Your task to perform on an android device: toggle sleep mode Image 0: 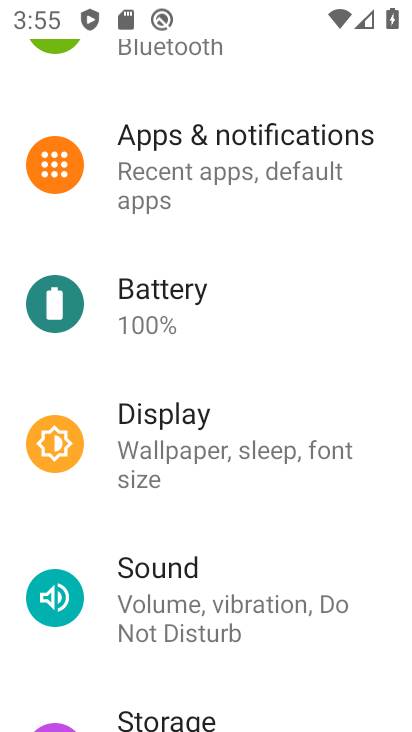
Step 0: press home button
Your task to perform on an android device: toggle sleep mode Image 1: 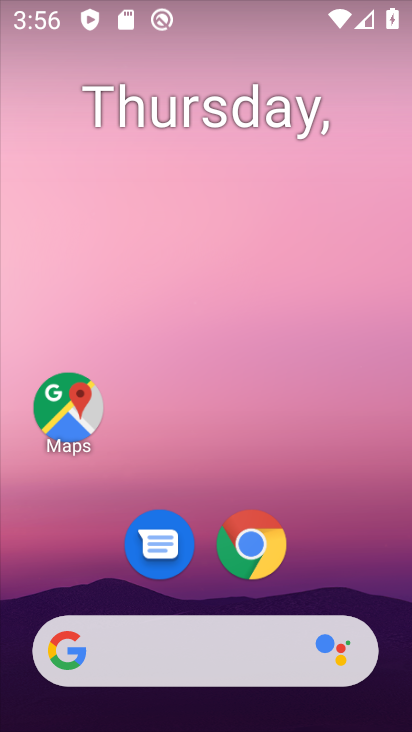
Step 1: drag from (304, 563) to (304, 180)
Your task to perform on an android device: toggle sleep mode Image 2: 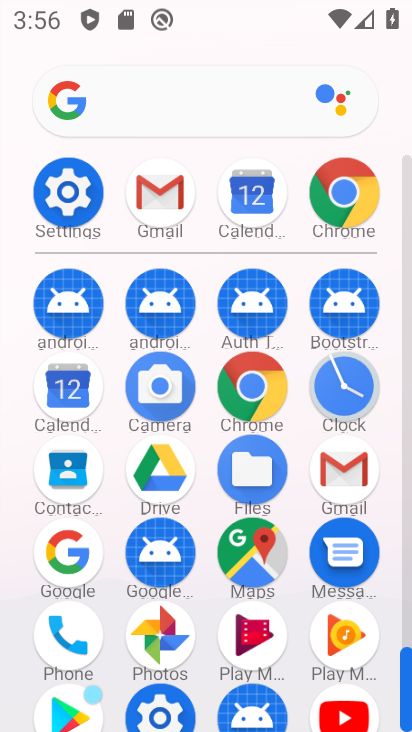
Step 2: click (69, 216)
Your task to perform on an android device: toggle sleep mode Image 3: 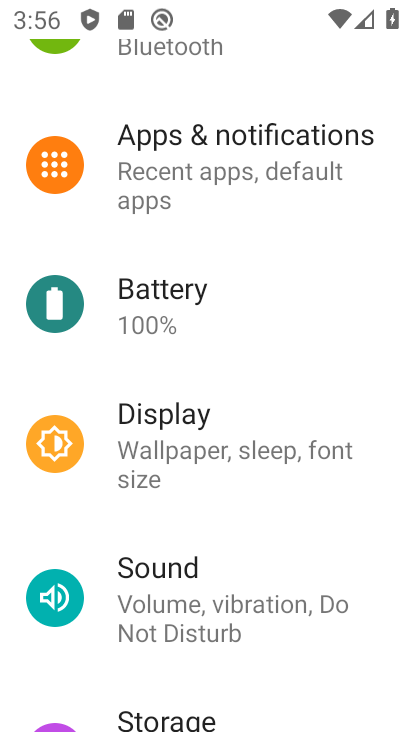
Step 3: click (183, 465)
Your task to perform on an android device: toggle sleep mode Image 4: 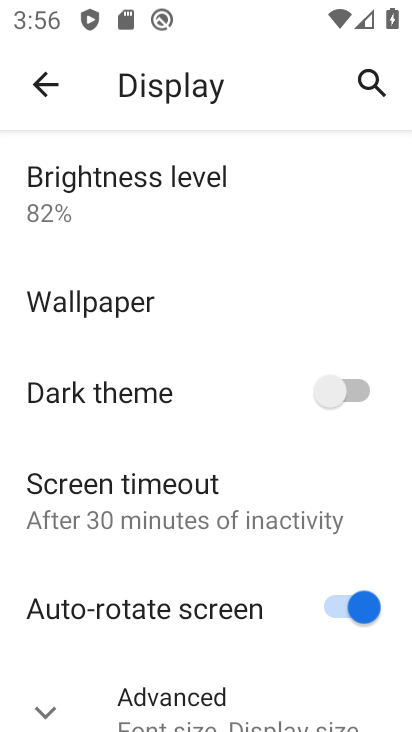
Step 4: drag from (234, 466) to (266, 205)
Your task to perform on an android device: toggle sleep mode Image 5: 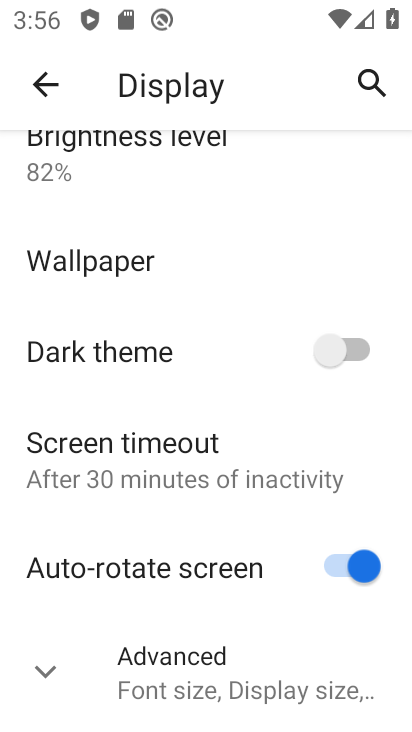
Step 5: drag from (189, 356) to (215, 685)
Your task to perform on an android device: toggle sleep mode Image 6: 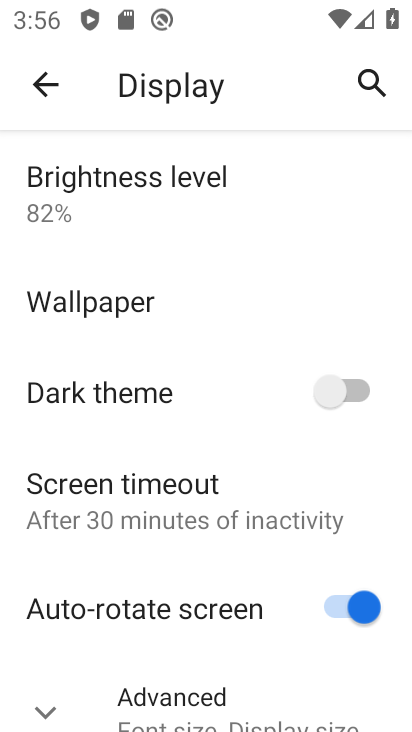
Step 6: drag from (232, 621) to (218, 162)
Your task to perform on an android device: toggle sleep mode Image 7: 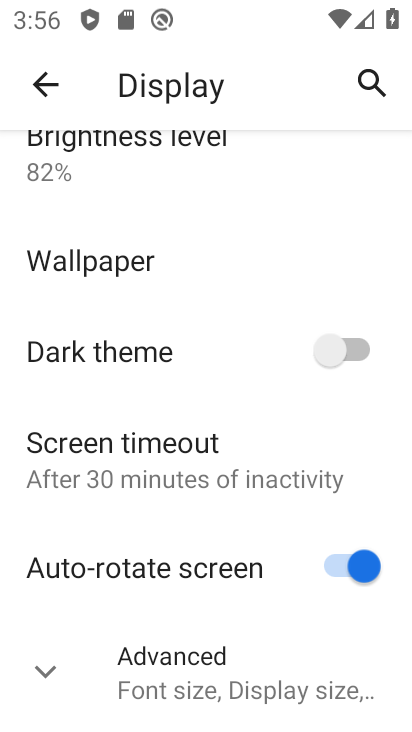
Step 7: click (214, 666)
Your task to perform on an android device: toggle sleep mode Image 8: 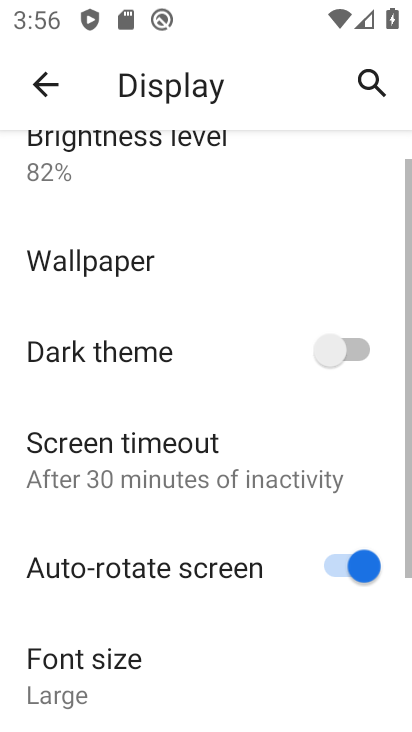
Step 8: task complete